Your task to perform on an android device: What's a good restaurant in Portland? Image 0: 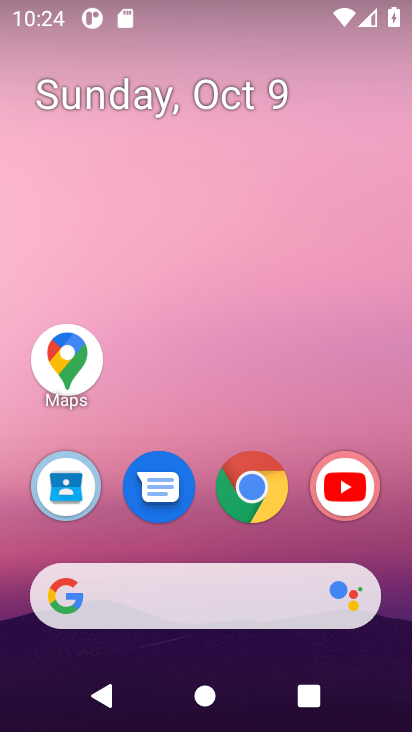
Step 0: click (248, 488)
Your task to perform on an android device: What's a good restaurant in Portland? Image 1: 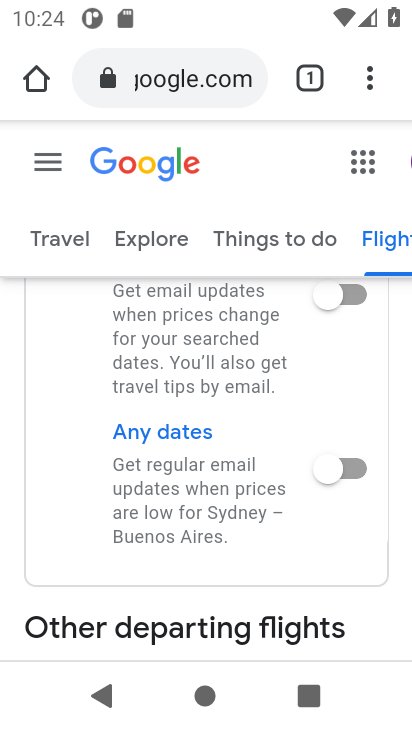
Step 1: click (129, 86)
Your task to perform on an android device: What's a good restaurant in Portland? Image 2: 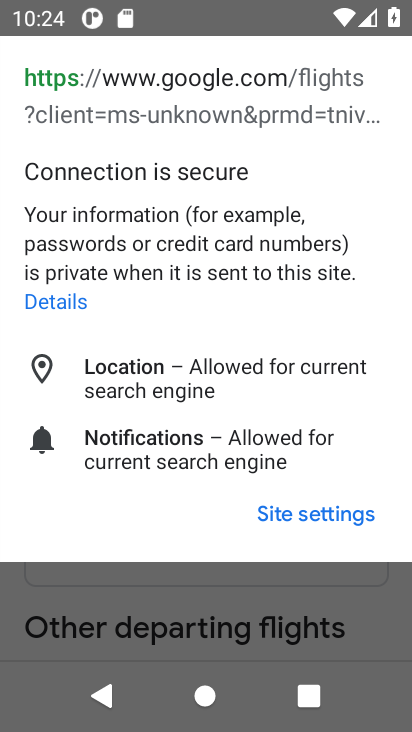
Step 2: click (254, 623)
Your task to perform on an android device: What's a good restaurant in Portland? Image 3: 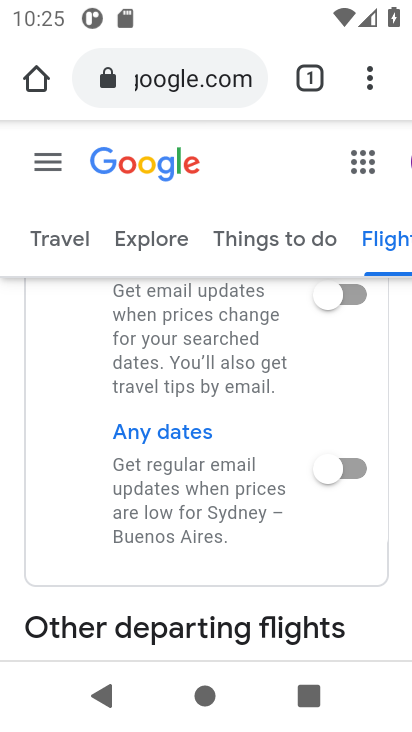
Step 3: click (213, 88)
Your task to perform on an android device: What's a good restaurant in Portland? Image 4: 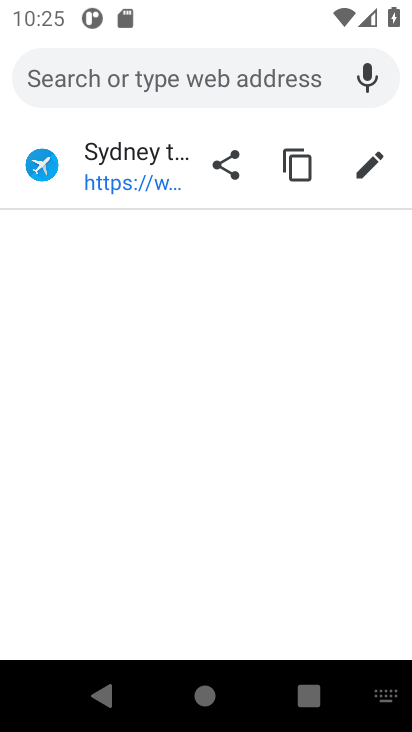
Step 4: type "good restaurant in portland"
Your task to perform on an android device: What's a good restaurant in Portland? Image 5: 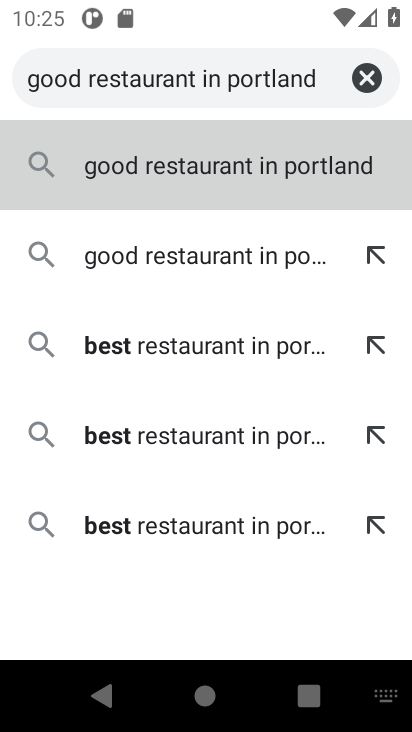
Step 5: press enter
Your task to perform on an android device: What's a good restaurant in Portland? Image 6: 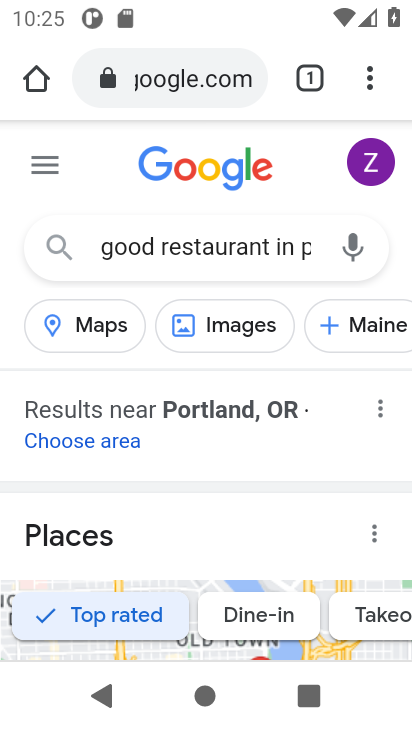
Step 6: drag from (211, 476) to (223, 228)
Your task to perform on an android device: What's a good restaurant in Portland? Image 7: 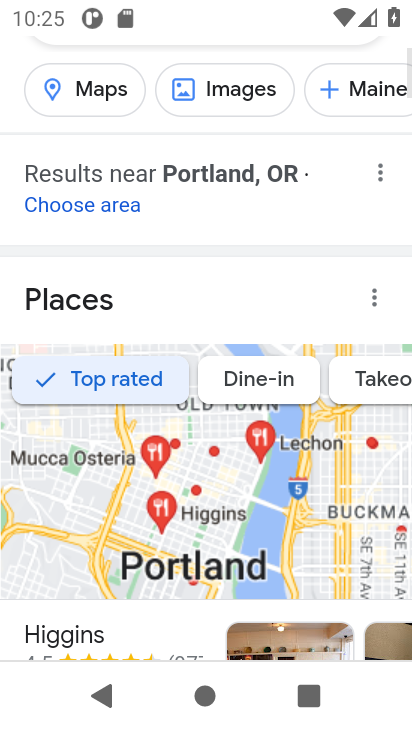
Step 7: drag from (216, 382) to (224, 225)
Your task to perform on an android device: What's a good restaurant in Portland? Image 8: 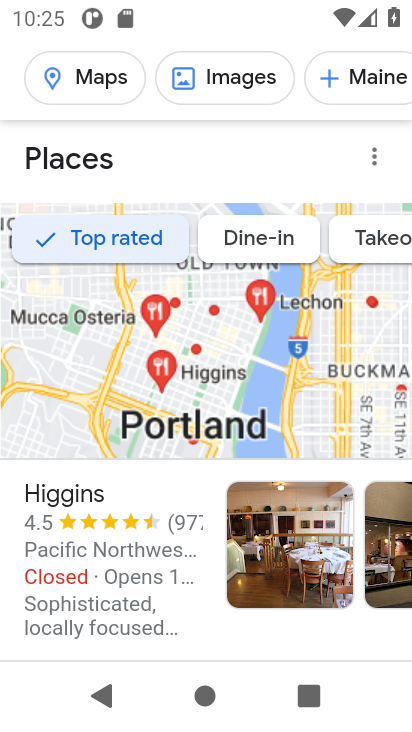
Step 8: drag from (235, 433) to (239, 195)
Your task to perform on an android device: What's a good restaurant in Portland? Image 9: 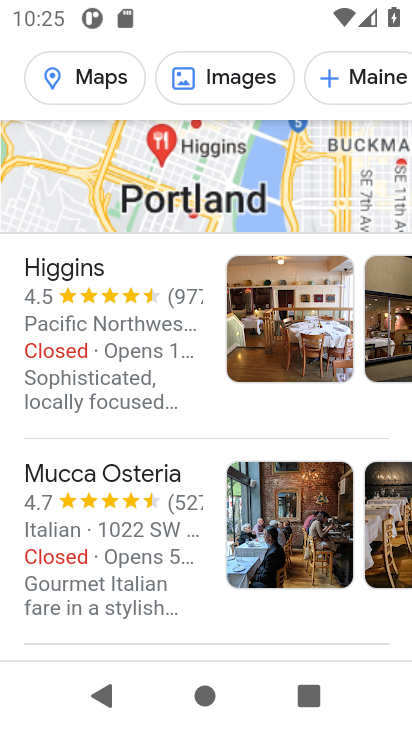
Step 9: drag from (262, 554) to (265, 202)
Your task to perform on an android device: What's a good restaurant in Portland? Image 10: 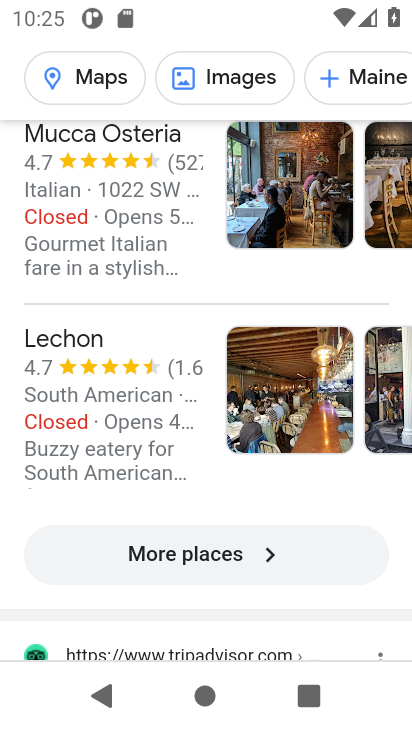
Step 10: drag from (273, 522) to (276, 261)
Your task to perform on an android device: What's a good restaurant in Portland? Image 11: 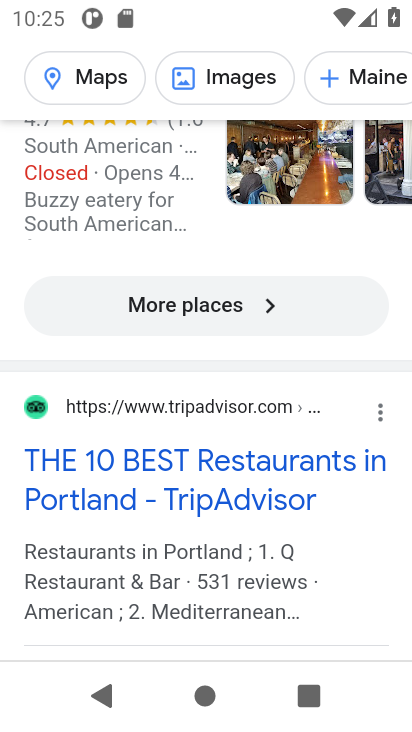
Step 11: drag from (270, 534) to (248, 275)
Your task to perform on an android device: What's a good restaurant in Portland? Image 12: 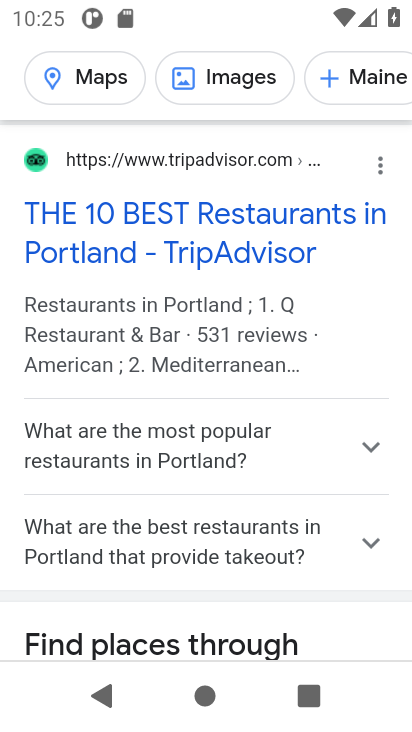
Step 12: drag from (208, 458) to (207, 209)
Your task to perform on an android device: What's a good restaurant in Portland? Image 13: 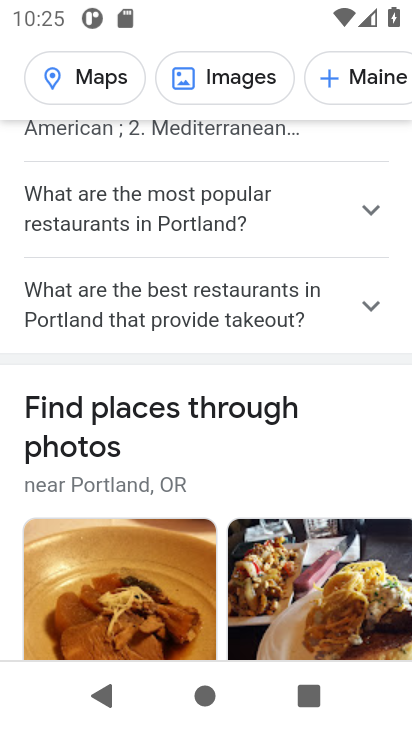
Step 13: drag from (216, 524) to (203, 208)
Your task to perform on an android device: What's a good restaurant in Portland? Image 14: 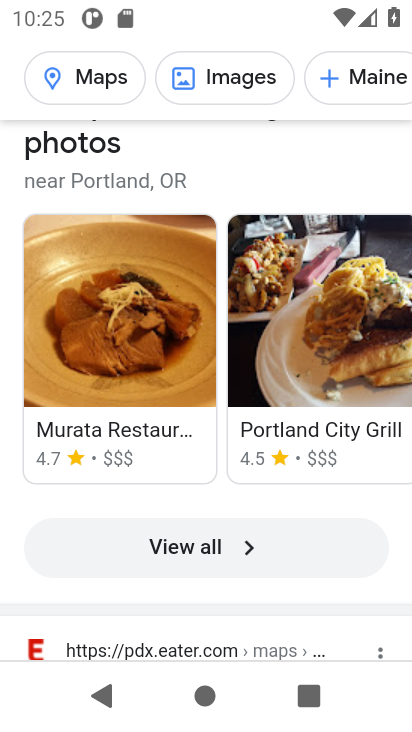
Step 14: drag from (215, 598) to (174, 239)
Your task to perform on an android device: What's a good restaurant in Portland? Image 15: 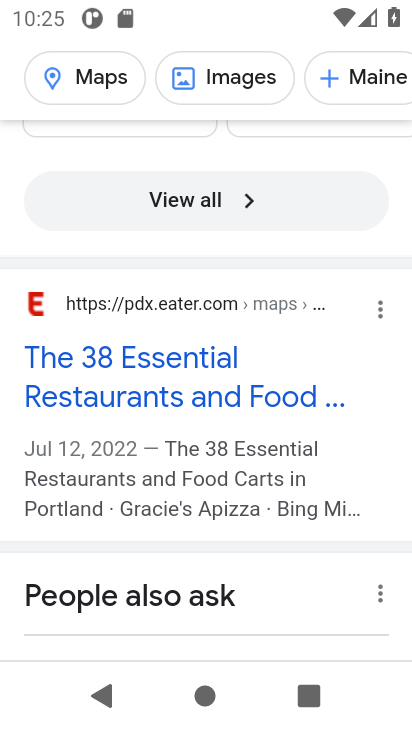
Step 15: drag from (196, 574) to (192, 305)
Your task to perform on an android device: What's a good restaurant in Portland? Image 16: 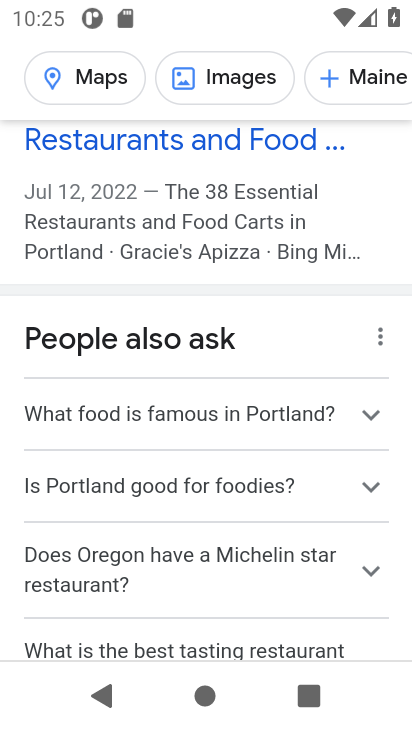
Step 16: drag from (197, 512) to (181, 254)
Your task to perform on an android device: What's a good restaurant in Portland? Image 17: 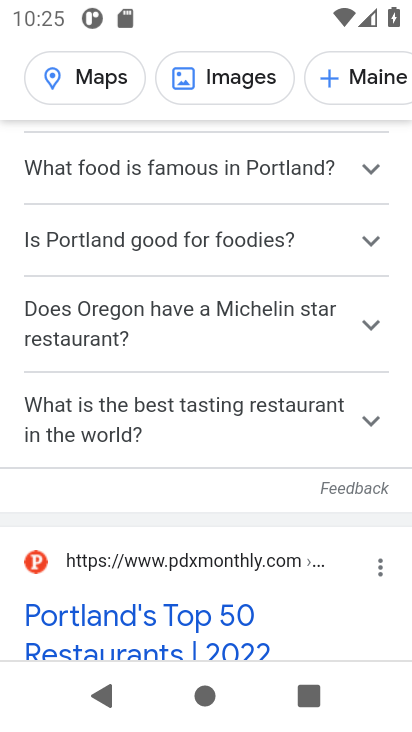
Step 17: drag from (184, 548) to (155, 231)
Your task to perform on an android device: What's a good restaurant in Portland? Image 18: 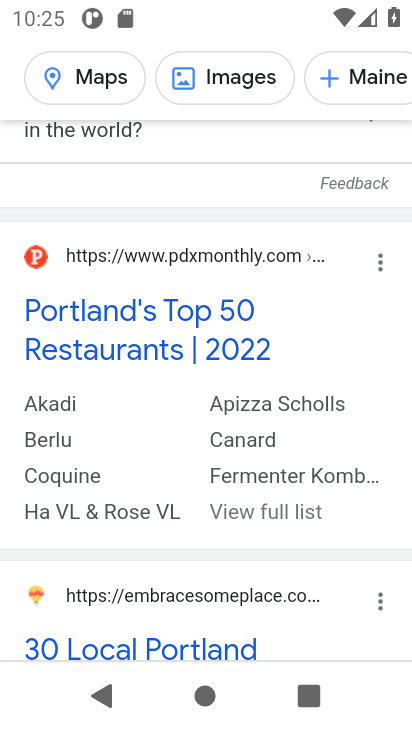
Step 18: drag from (210, 584) to (195, 278)
Your task to perform on an android device: What's a good restaurant in Portland? Image 19: 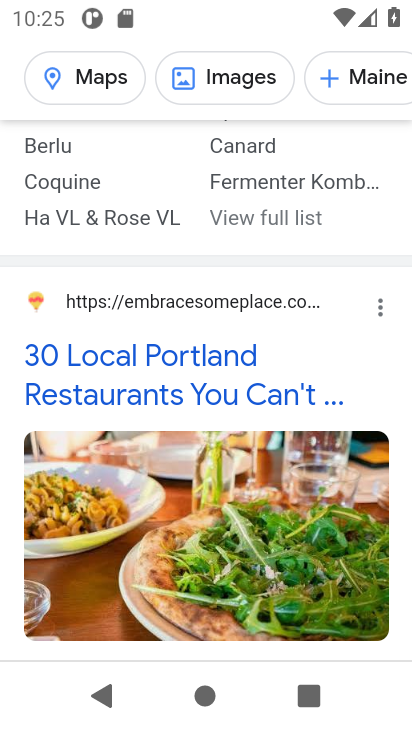
Step 19: drag from (194, 455) to (165, 217)
Your task to perform on an android device: What's a good restaurant in Portland? Image 20: 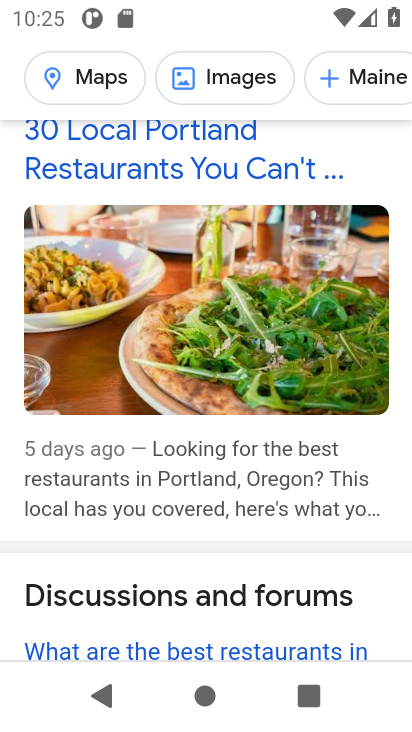
Step 20: drag from (194, 575) to (187, 256)
Your task to perform on an android device: What's a good restaurant in Portland? Image 21: 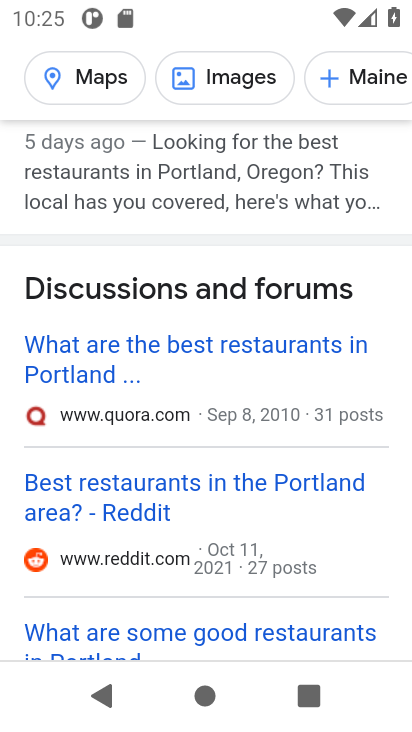
Step 21: drag from (231, 493) to (220, 220)
Your task to perform on an android device: What's a good restaurant in Portland? Image 22: 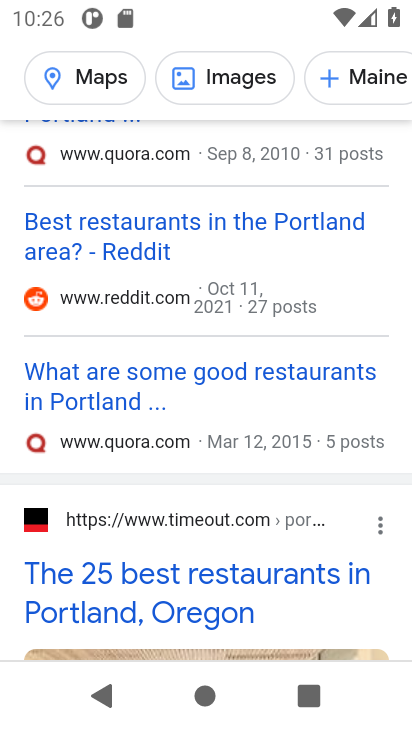
Step 22: drag from (241, 600) to (215, 267)
Your task to perform on an android device: What's a good restaurant in Portland? Image 23: 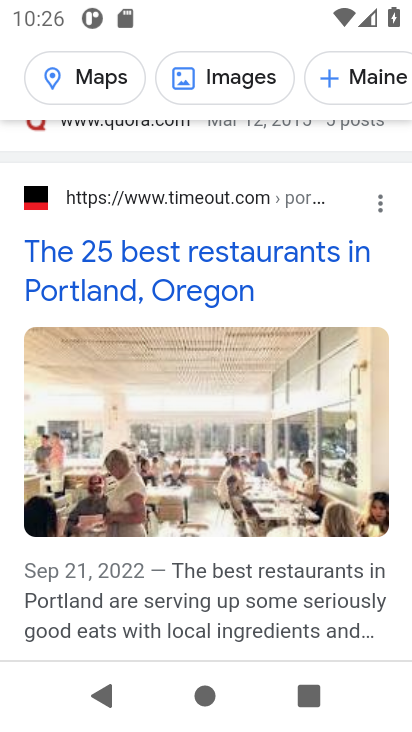
Step 23: drag from (210, 547) to (198, 251)
Your task to perform on an android device: What's a good restaurant in Portland? Image 24: 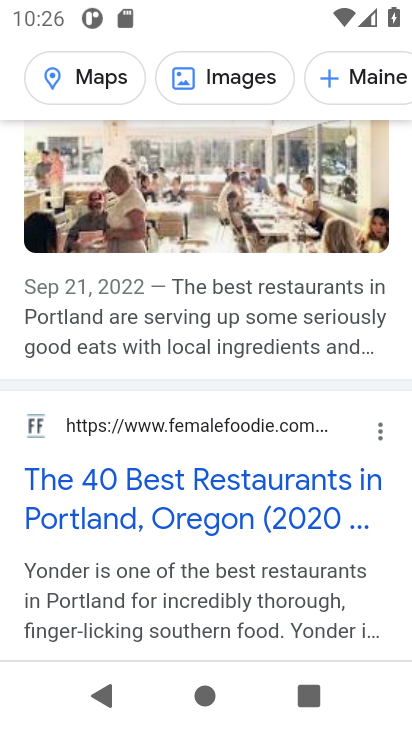
Step 24: drag from (227, 528) to (226, 432)
Your task to perform on an android device: What's a good restaurant in Portland? Image 25: 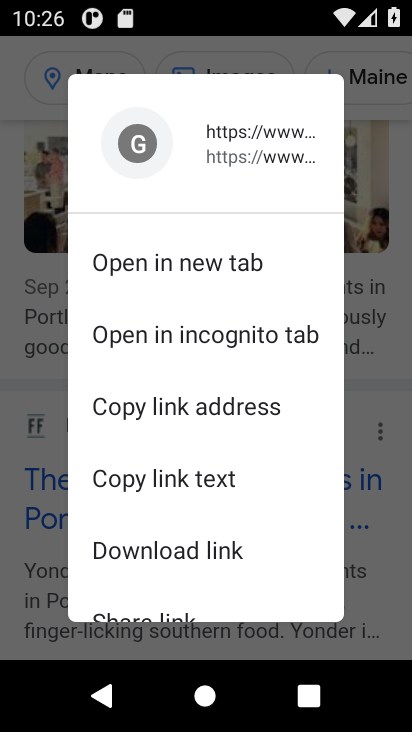
Step 25: click (398, 394)
Your task to perform on an android device: What's a good restaurant in Portland? Image 26: 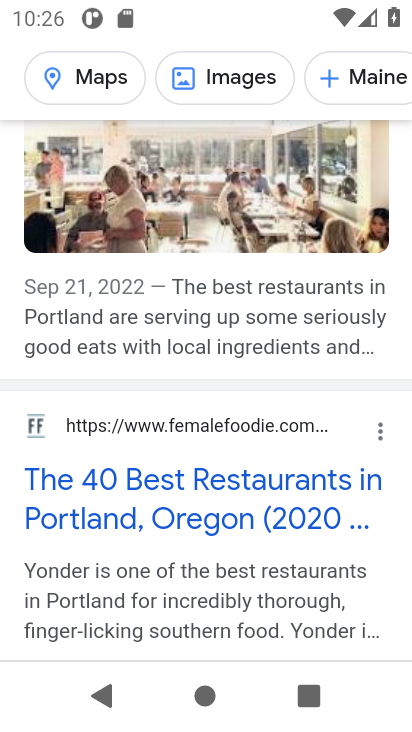
Step 26: task complete